Your task to perform on an android device: delete location history Image 0: 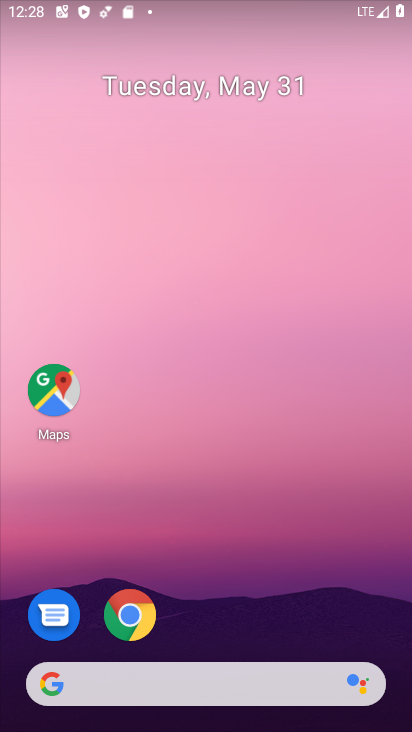
Step 0: drag from (225, 613) to (360, 2)
Your task to perform on an android device: delete location history Image 1: 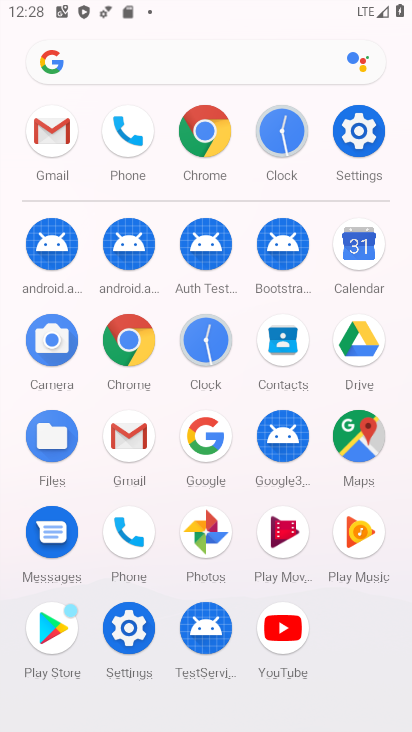
Step 1: click (363, 453)
Your task to perform on an android device: delete location history Image 2: 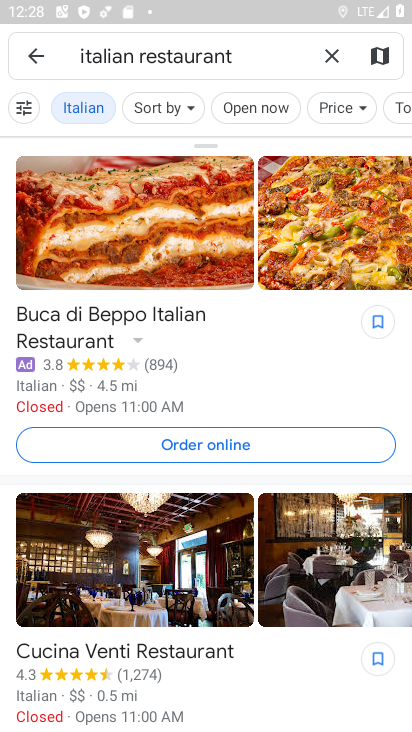
Step 2: click (34, 56)
Your task to perform on an android device: delete location history Image 3: 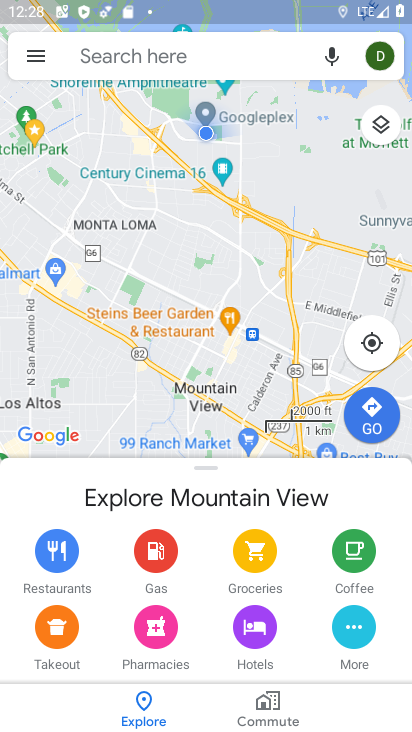
Step 3: click (37, 56)
Your task to perform on an android device: delete location history Image 4: 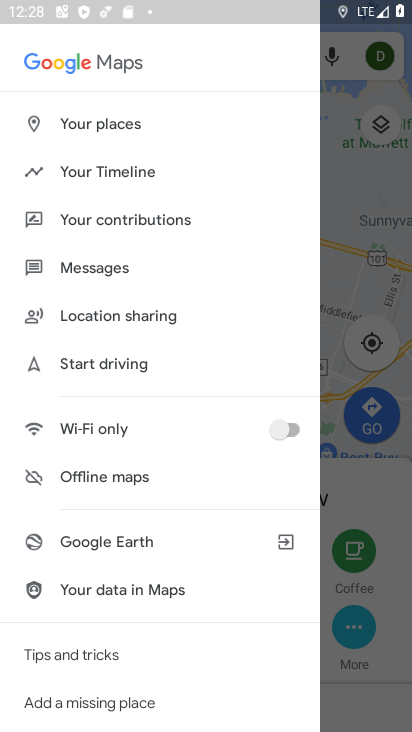
Step 4: click (130, 176)
Your task to perform on an android device: delete location history Image 5: 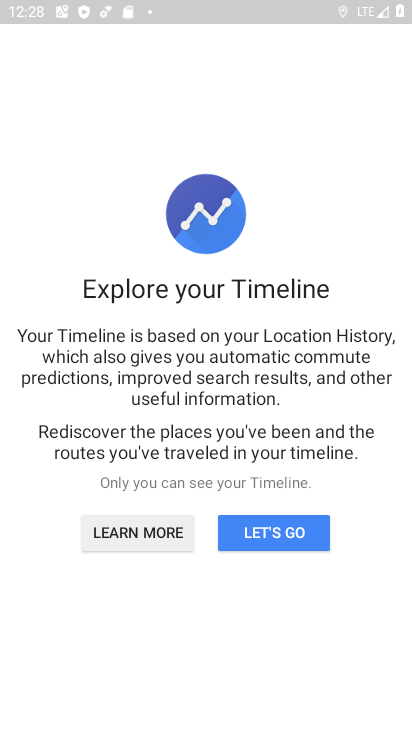
Step 5: click (277, 521)
Your task to perform on an android device: delete location history Image 6: 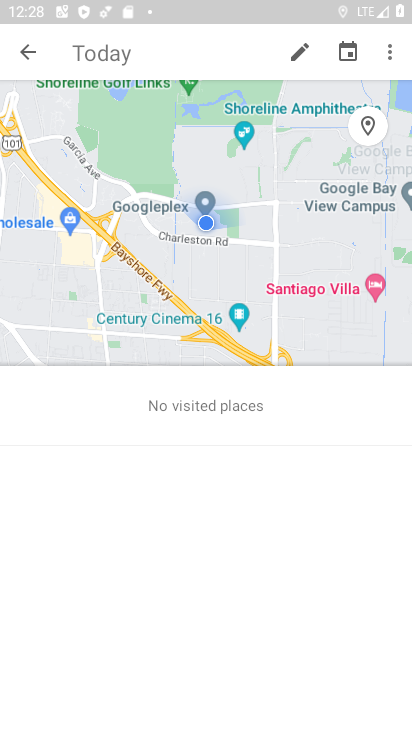
Step 6: click (386, 54)
Your task to perform on an android device: delete location history Image 7: 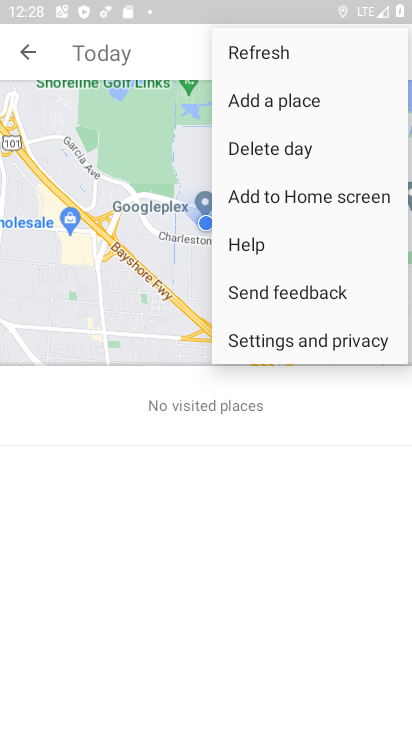
Step 7: click (245, 343)
Your task to perform on an android device: delete location history Image 8: 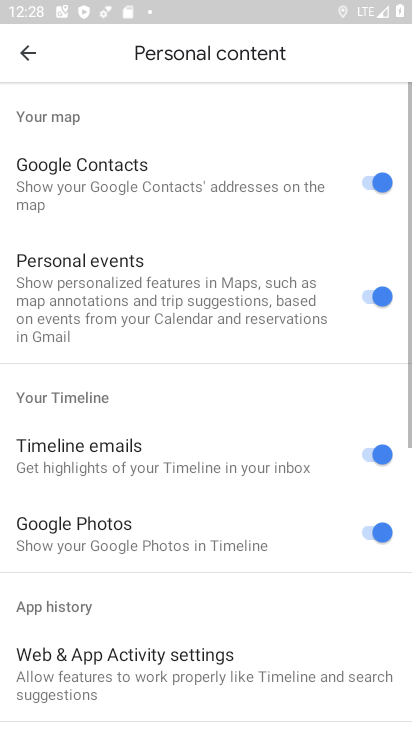
Step 8: drag from (156, 581) to (175, 97)
Your task to perform on an android device: delete location history Image 9: 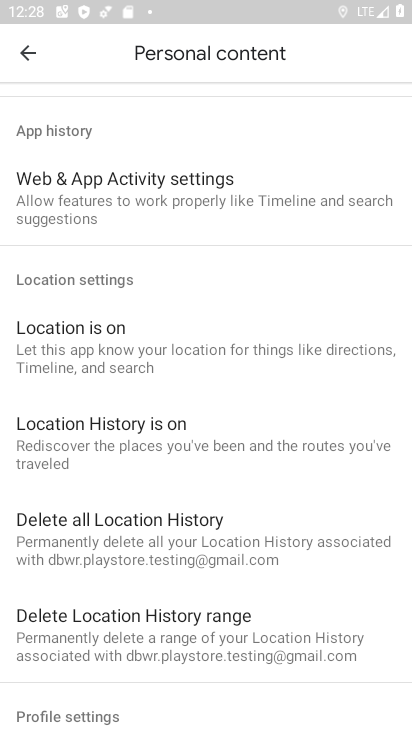
Step 9: click (135, 538)
Your task to perform on an android device: delete location history Image 10: 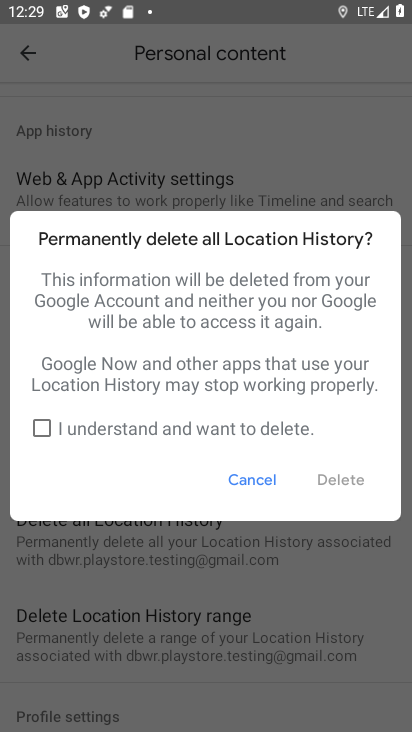
Step 10: click (100, 431)
Your task to perform on an android device: delete location history Image 11: 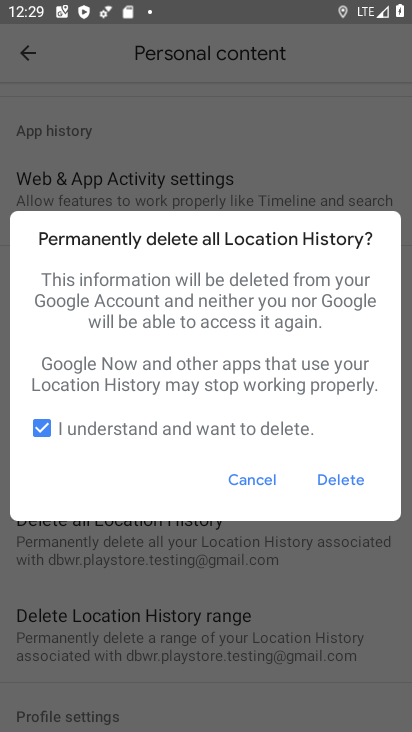
Step 11: click (342, 483)
Your task to perform on an android device: delete location history Image 12: 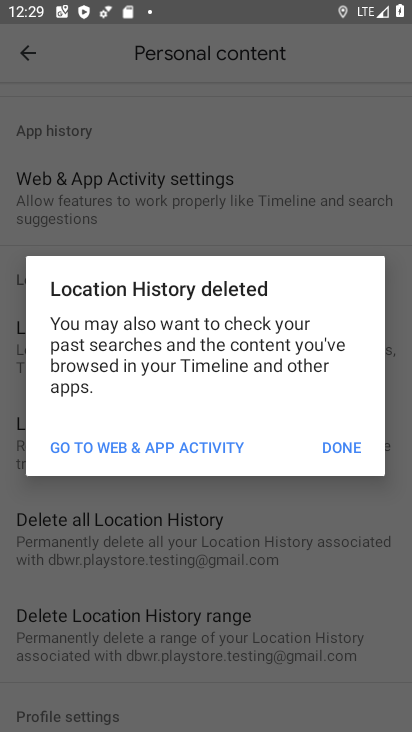
Step 12: click (357, 452)
Your task to perform on an android device: delete location history Image 13: 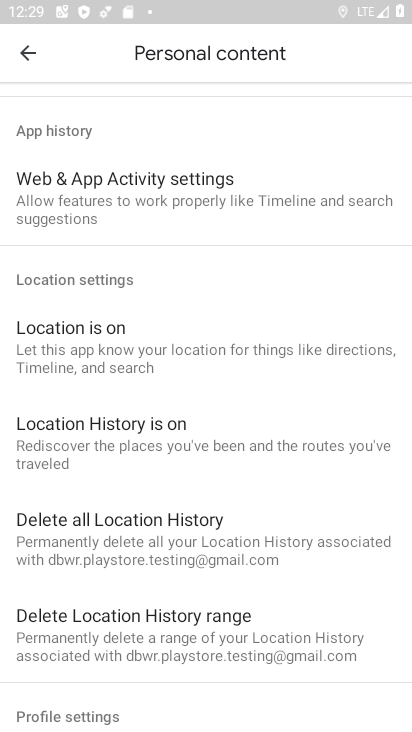
Step 13: task complete